Your task to perform on an android device: Open accessibility settings Image 0: 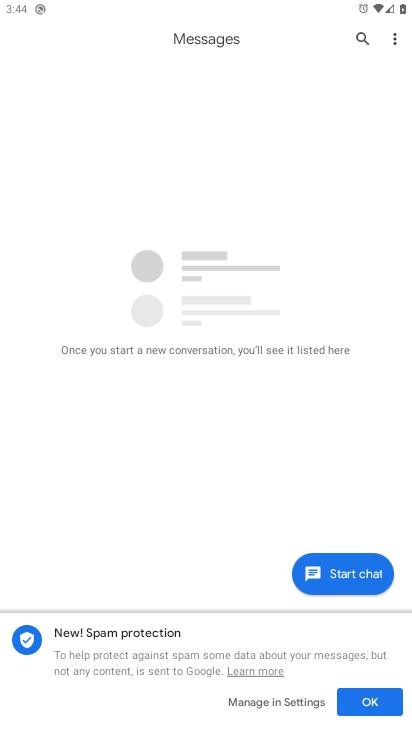
Step 0: press home button
Your task to perform on an android device: Open accessibility settings Image 1: 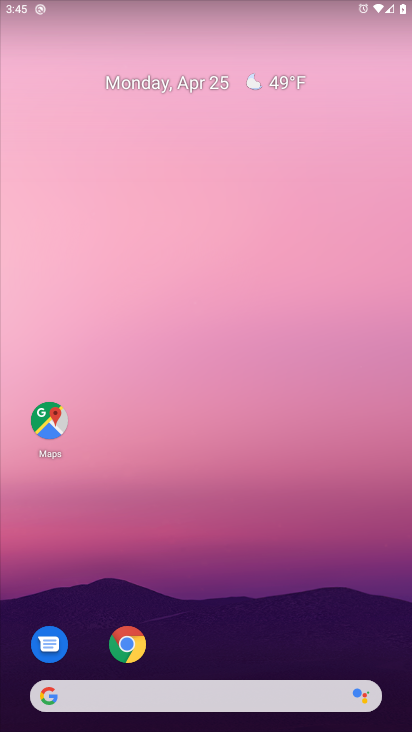
Step 1: drag from (227, 633) to (234, 191)
Your task to perform on an android device: Open accessibility settings Image 2: 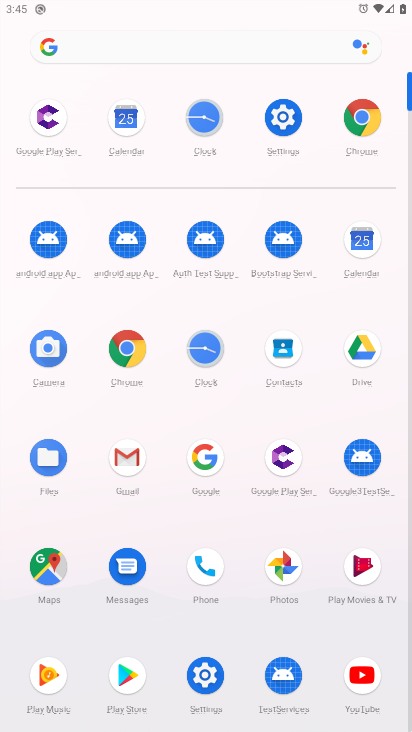
Step 2: click (291, 109)
Your task to perform on an android device: Open accessibility settings Image 3: 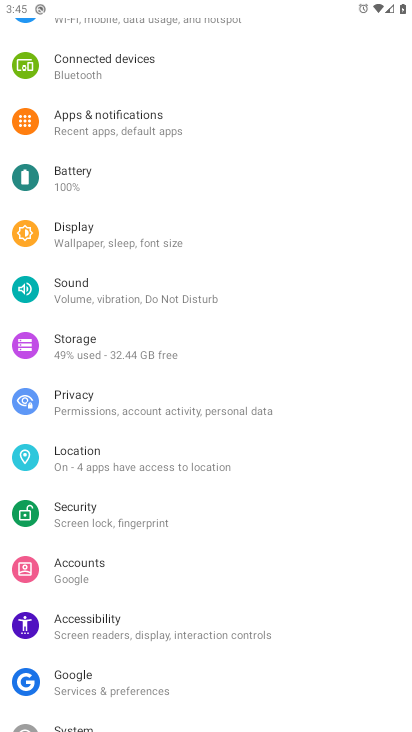
Step 3: click (98, 604)
Your task to perform on an android device: Open accessibility settings Image 4: 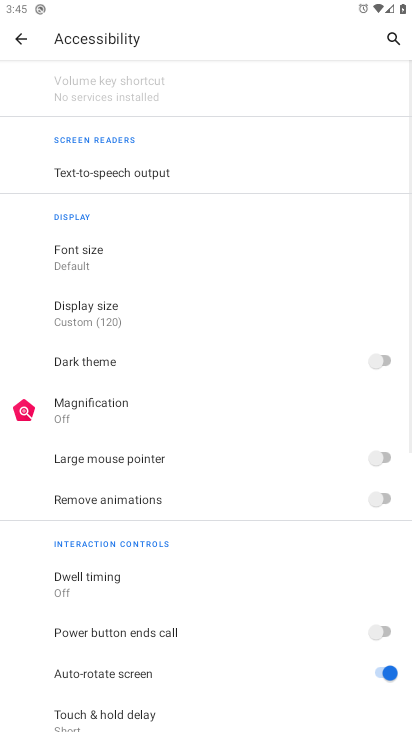
Step 4: task complete